Your task to perform on an android device: set the timer Image 0: 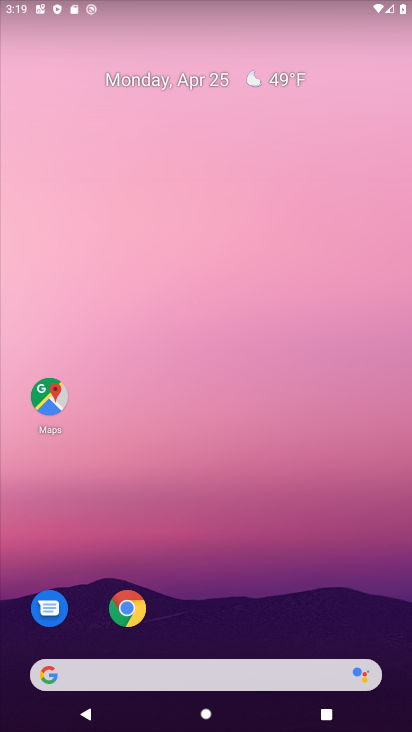
Step 0: drag from (235, 617) to (269, 144)
Your task to perform on an android device: set the timer Image 1: 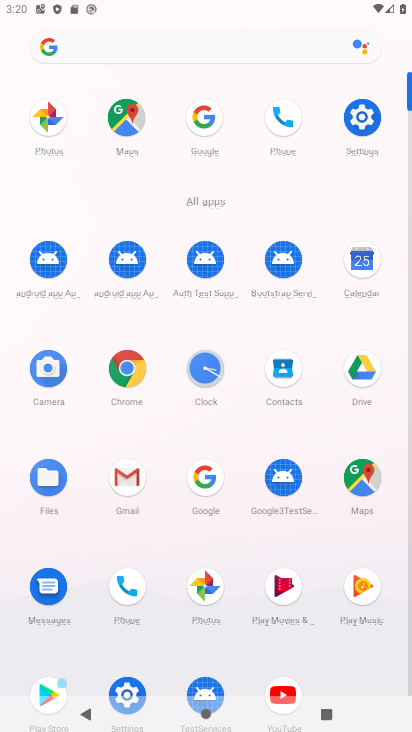
Step 1: click (213, 399)
Your task to perform on an android device: set the timer Image 2: 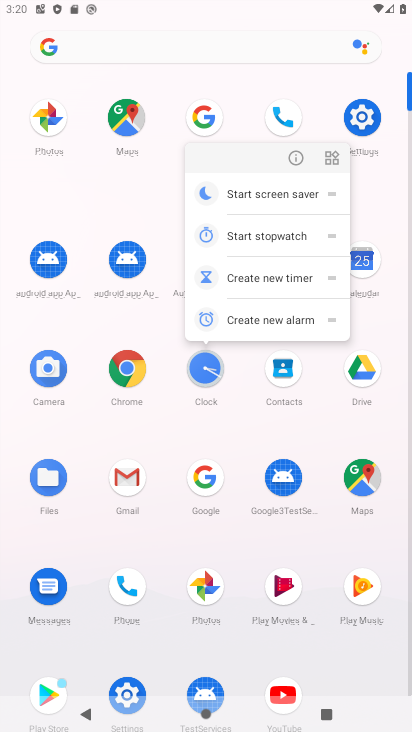
Step 2: click (206, 384)
Your task to perform on an android device: set the timer Image 3: 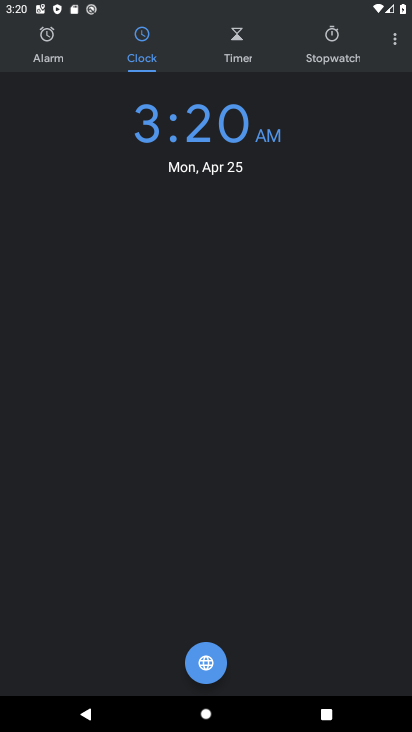
Step 3: drag from (332, 69) to (282, 398)
Your task to perform on an android device: set the timer Image 4: 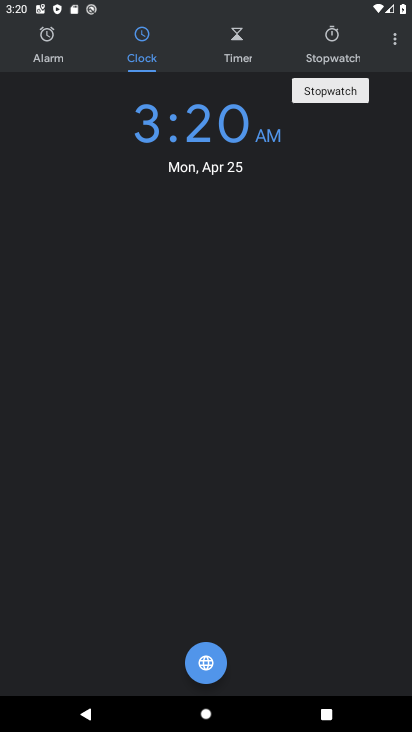
Step 4: click (239, 51)
Your task to perform on an android device: set the timer Image 5: 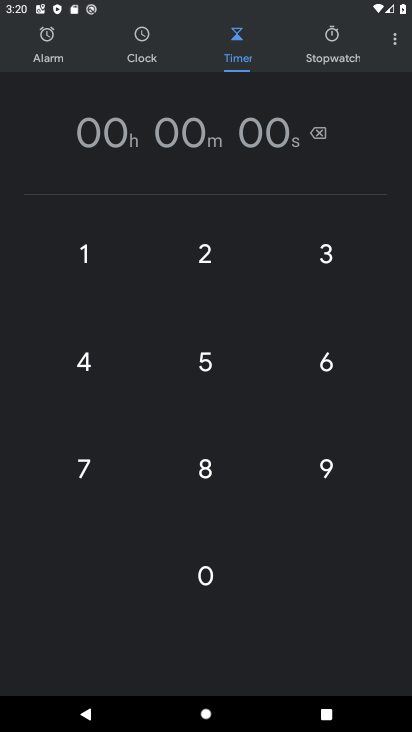
Step 5: click (216, 260)
Your task to perform on an android device: set the timer Image 6: 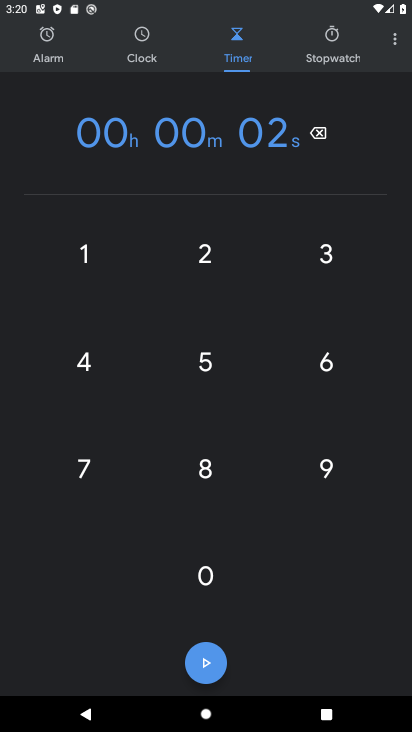
Step 6: click (212, 659)
Your task to perform on an android device: set the timer Image 7: 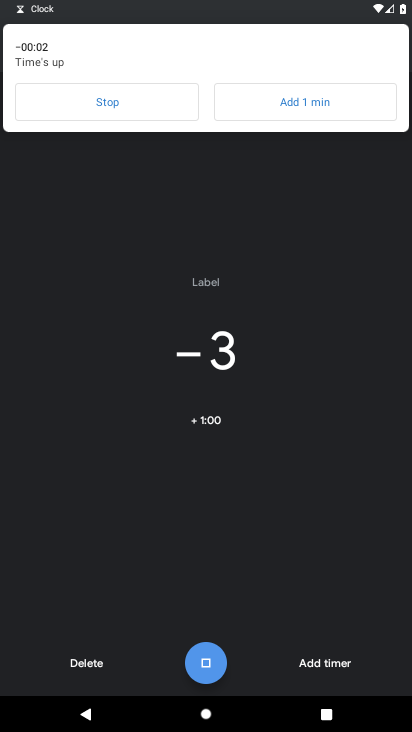
Step 7: task complete